Your task to perform on an android device: What's the weather going to be this weekend? Image 0: 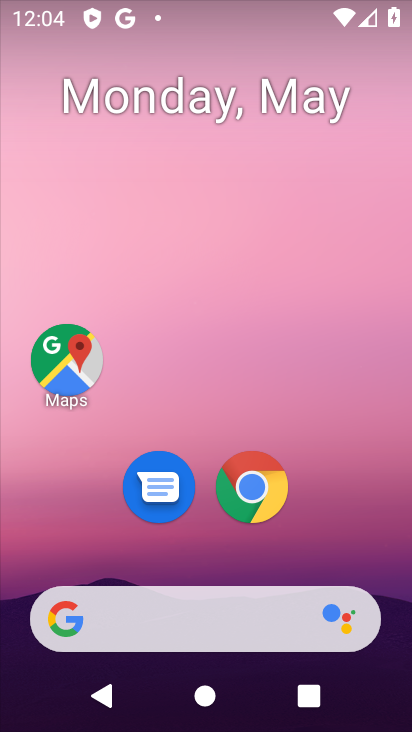
Step 0: drag from (329, 156) to (342, 0)
Your task to perform on an android device: What's the weather going to be this weekend? Image 1: 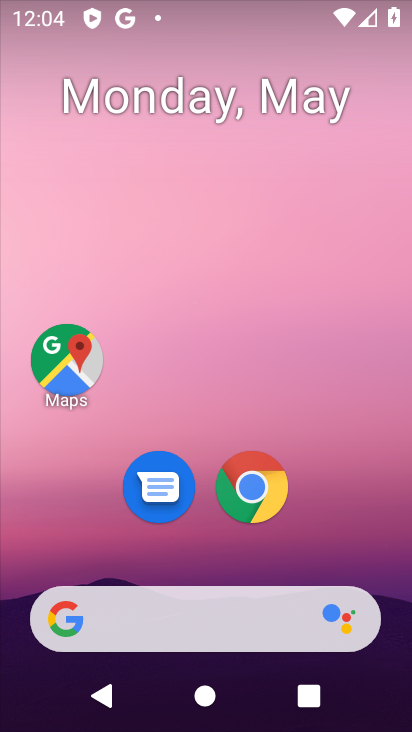
Step 1: drag from (318, 520) to (293, 12)
Your task to perform on an android device: What's the weather going to be this weekend? Image 2: 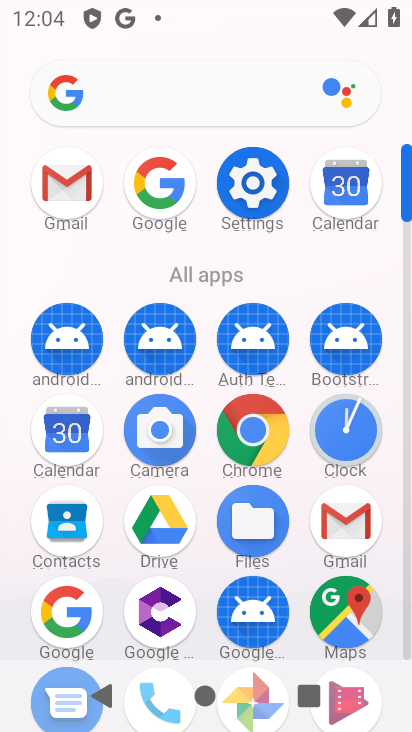
Step 2: click (221, 88)
Your task to perform on an android device: What's the weather going to be this weekend? Image 3: 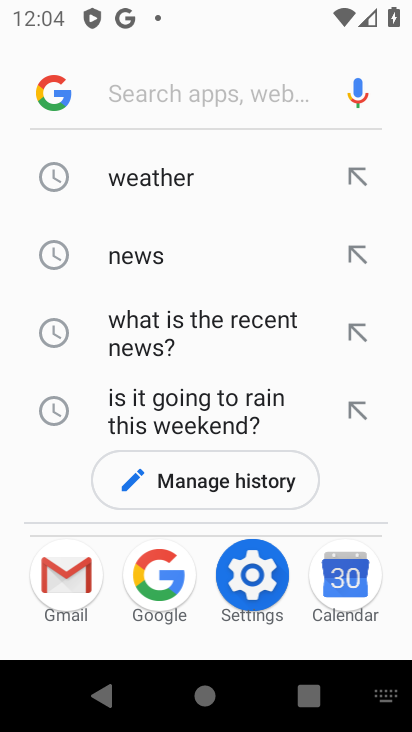
Step 3: type "what's the weather going to be this  weekend"
Your task to perform on an android device: What's the weather going to be this weekend? Image 4: 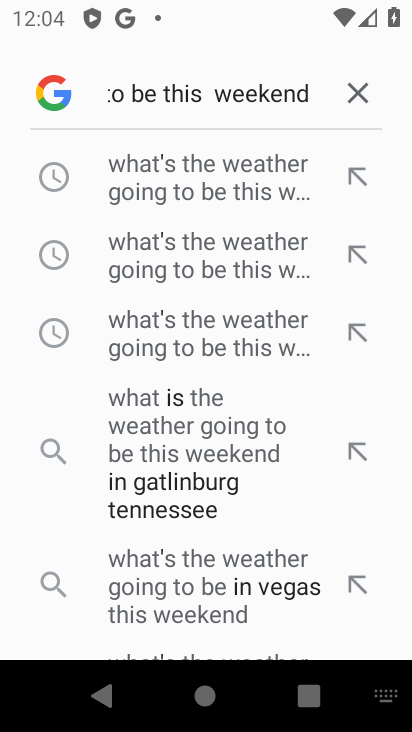
Step 4: click (262, 167)
Your task to perform on an android device: What's the weather going to be this weekend? Image 5: 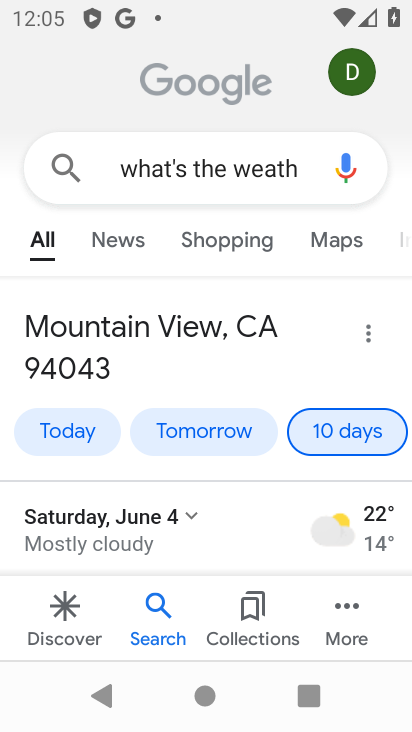
Step 5: task complete